Your task to perform on an android device: change keyboard looks Image 0: 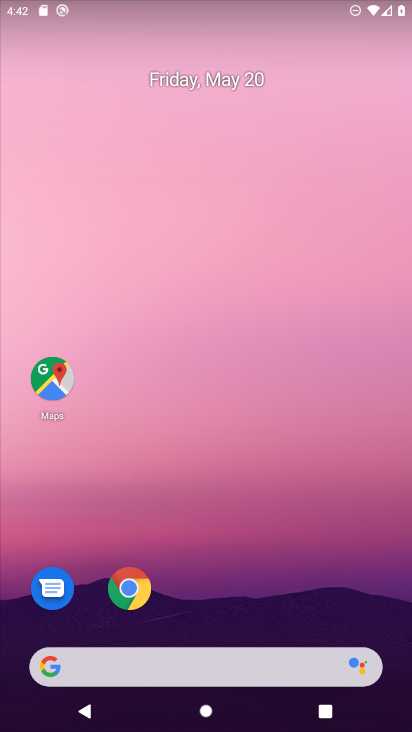
Step 0: drag from (233, 601) to (173, 342)
Your task to perform on an android device: change keyboard looks Image 1: 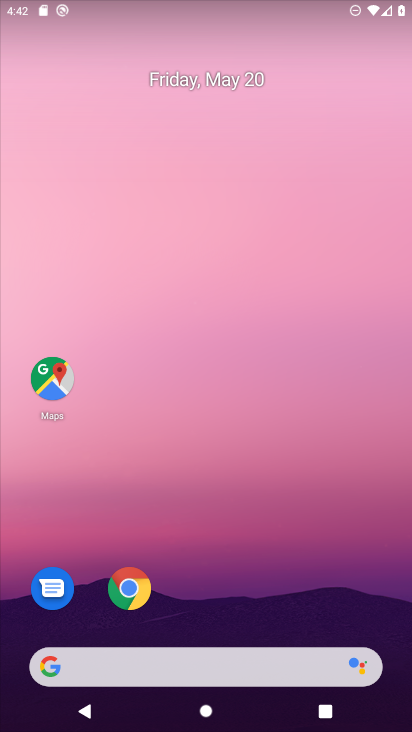
Step 1: drag from (222, 613) to (233, 219)
Your task to perform on an android device: change keyboard looks Image 2: 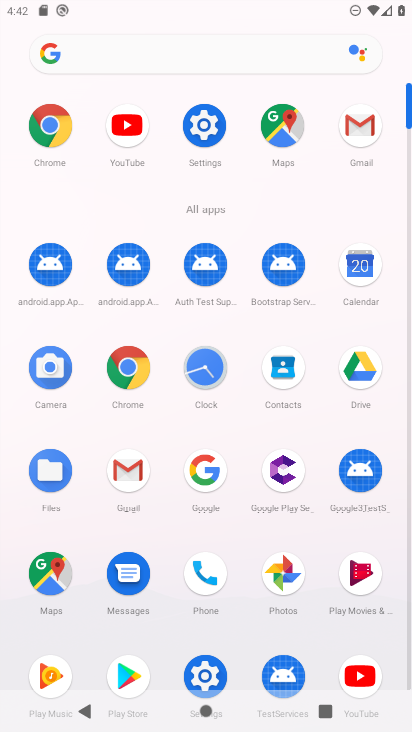
Step 2: click (211, 129)
Your task to perform on an android device: change keyboard looks Image 3: 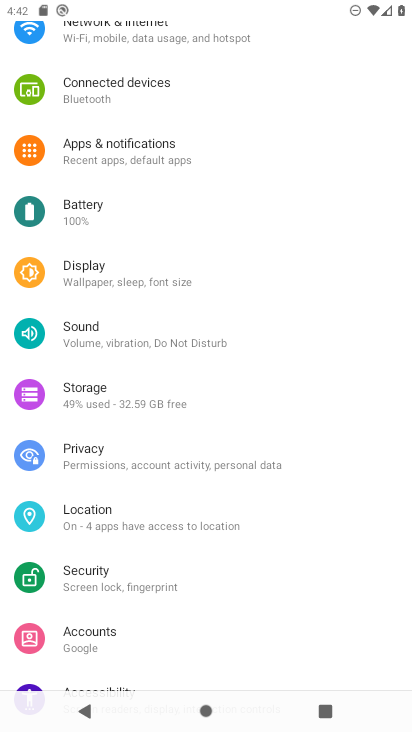
Step 3: drag from (143, 415) to (155, 265)
Your task to perform on an android device: change keyboard looks Image 4: 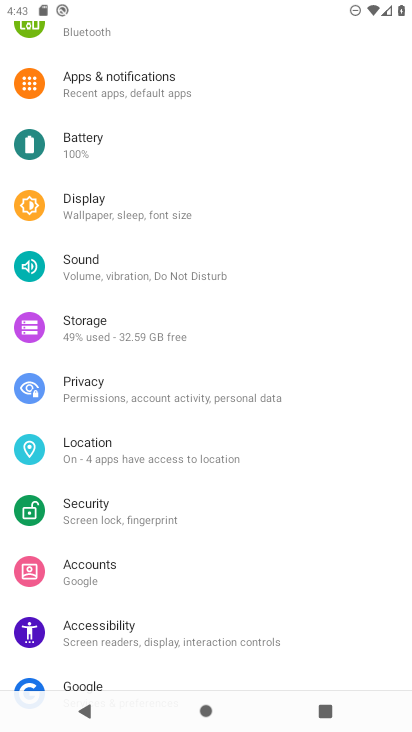
Step 4: drag from (99, 557) to (153, 367)
Your task to perform on an android device: change keyboard looks Image 5: 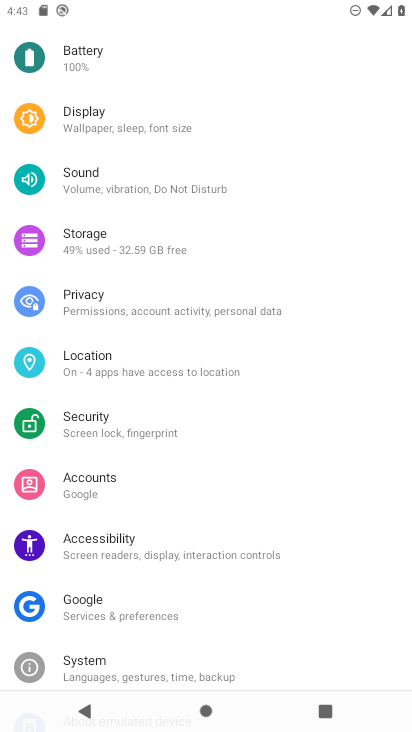
Step 5: click (93, 677)
Your task to perform on an android device: change keyboard looks Image 6: 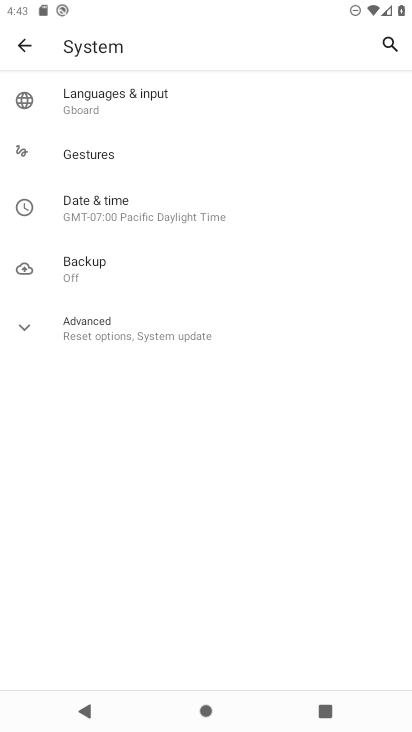
Step 6: click (171, 98)
Your task to perform on an android device: change keyboard looks Image 7: 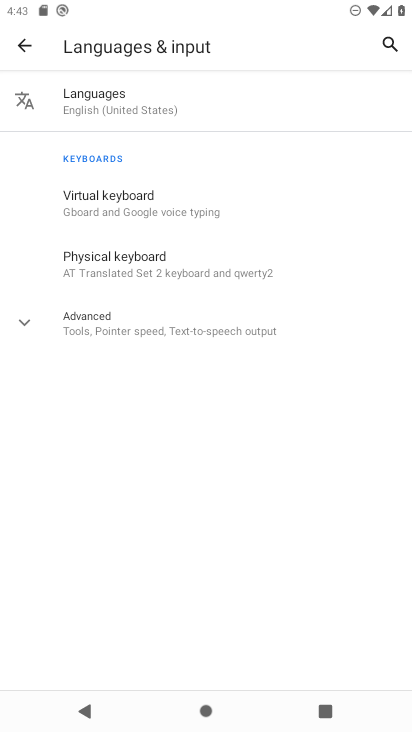
Step 7: click (105, 208)
Your task to perform on an android device: change keyboard looks Image 8: 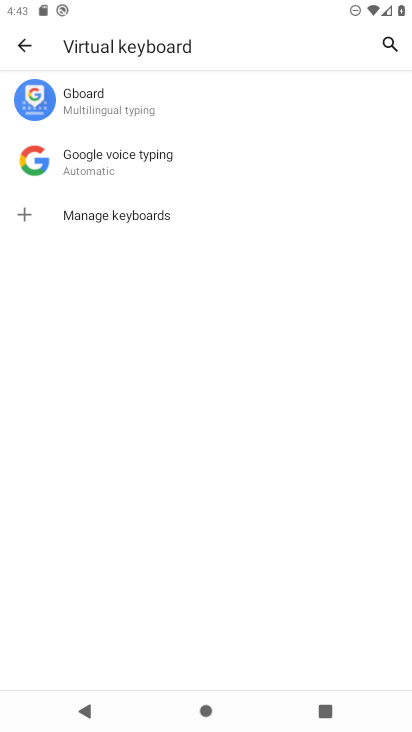
Step 8: click (81, 115)
Your task to perform on an android device: change keyboard looks Image 9: 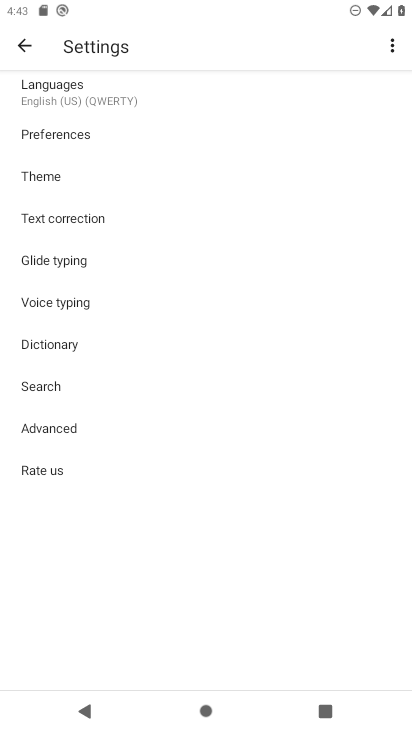
Step 9: click (49, 185)
Your task to perform on an android device: change keyboard looks Image 10: 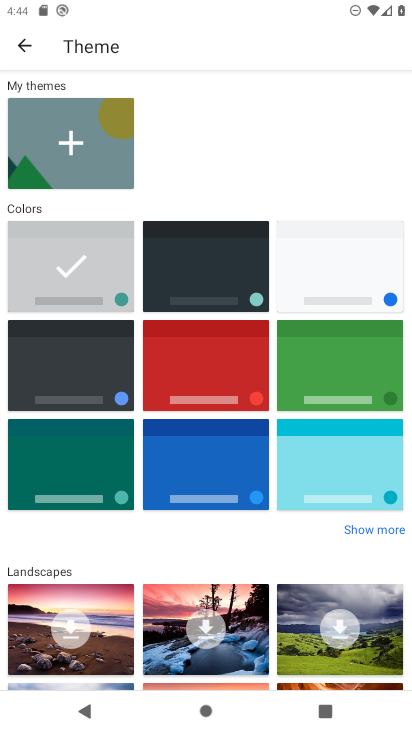
Step 10: click (230, 268)
Your task to perform on an android device: change keyboard looks Image 11: 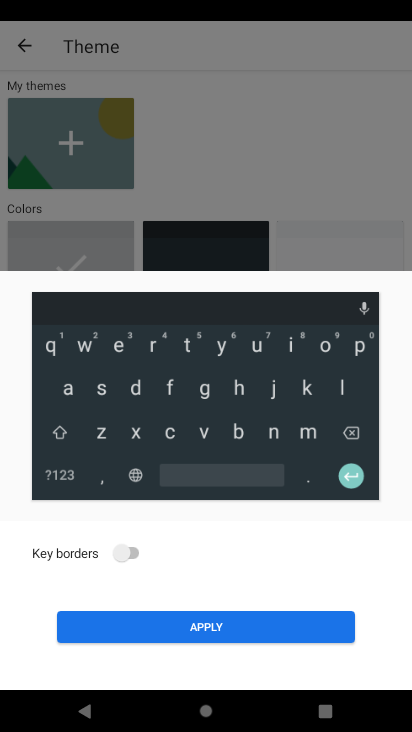
Step 11: click (214, 624)
Your task to perform on an android device: change keyboard looks Image 12: 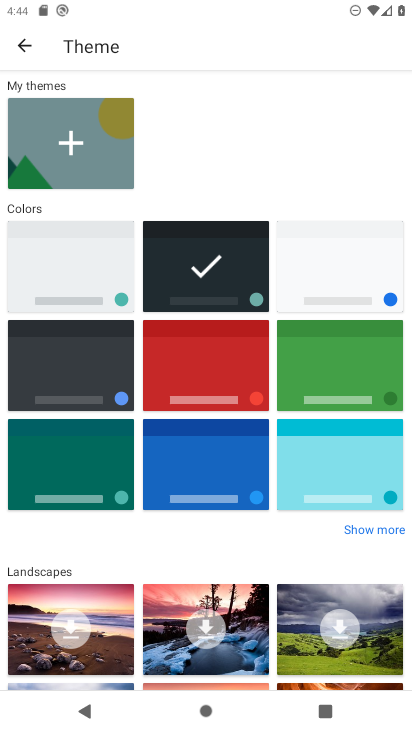
Step 12: task complete